Your task to perform on an android device: Open the Play Movies app and select the watchlist tab. Image 0: 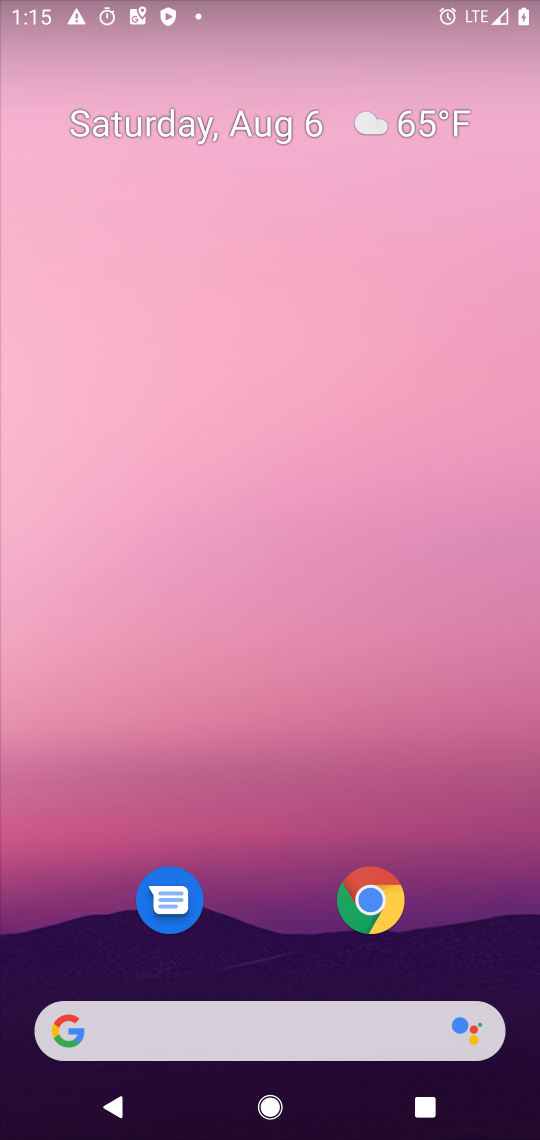
Step 0: drag from (270, 599) to (270, 243)
Your task to perform on an android device: Open the Play Movies app and select the watchlist tab. Image 1: 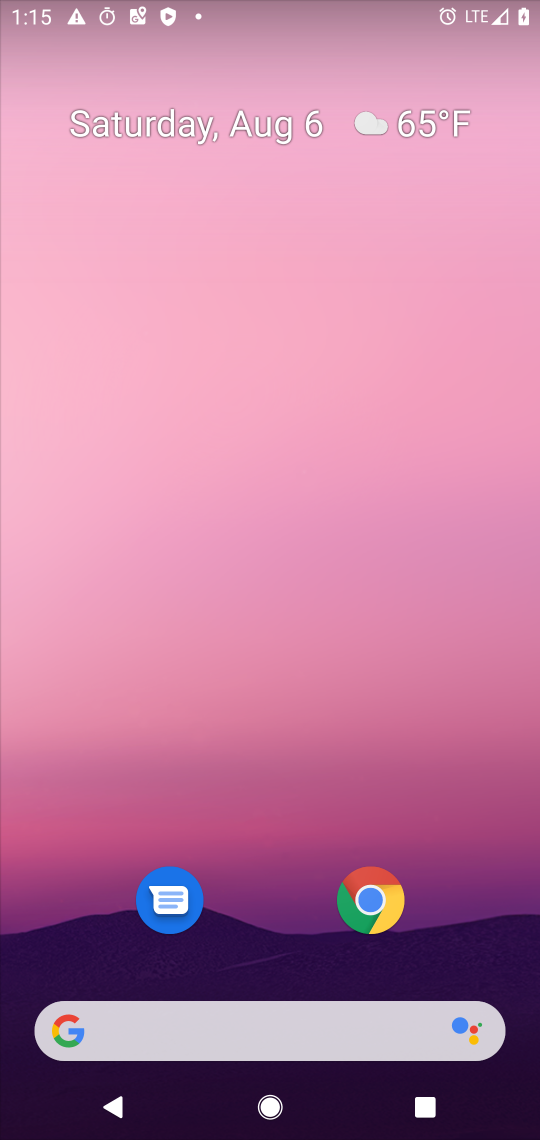
Step 1: drag from (251, 789) to (240, 19)
Your task to perform on an android device: Open the Play Movies app and select the watchlist tab. Image 2: 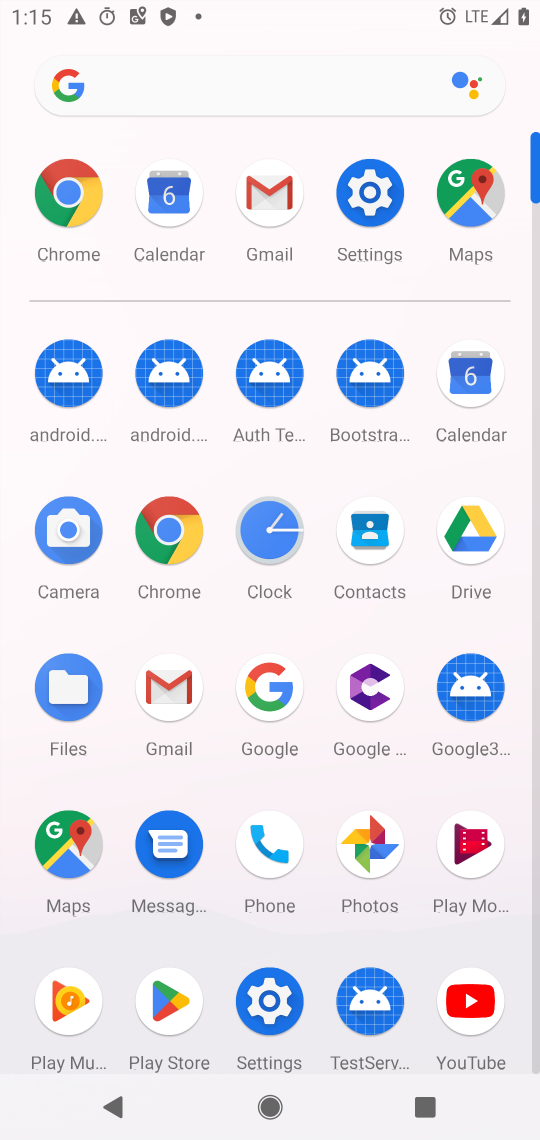
Step 2: click (471, 842)
Your task to perform on an android device: Open the Play Movies app and select the watchlist tab. Image 3: 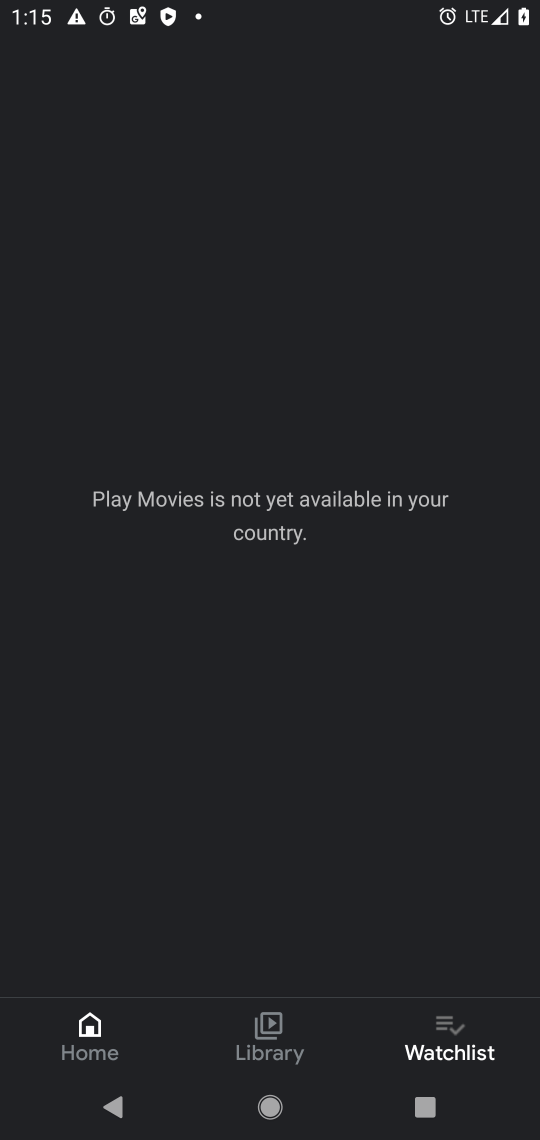
Step 3: task complete